Your task to perform on an android device: turn off notifications settings in the gmail app Image 0: 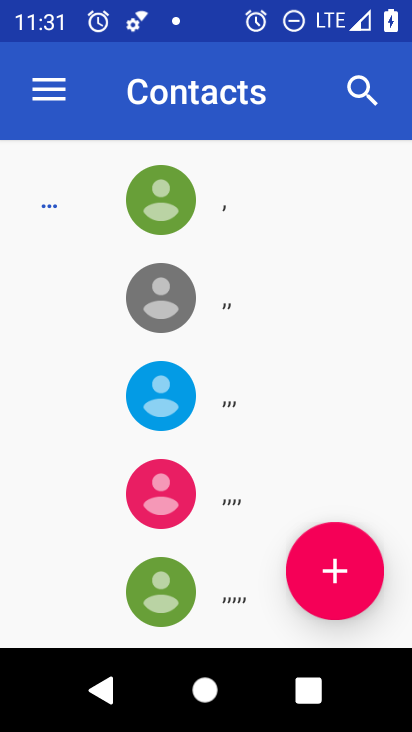
Step 0: press back button
Your task to perform on an android device: turn off notifications settings in the gmail app Image 1: 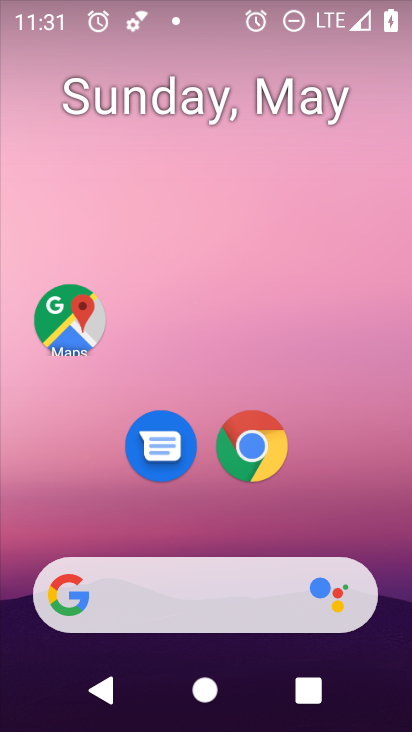
Step 1: drag from (322, 453) to (230, 75)
Your task to perform on an android device: turn off notifications settings in the gmail app Image 2: 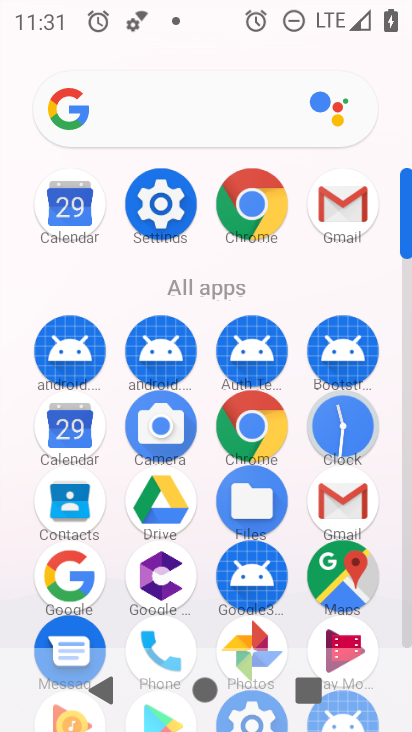
Step 2: drag from (24, 558) to (23, 286)
Your task to perform on an android device: turn off notifications settings in the gmail app Image 3: 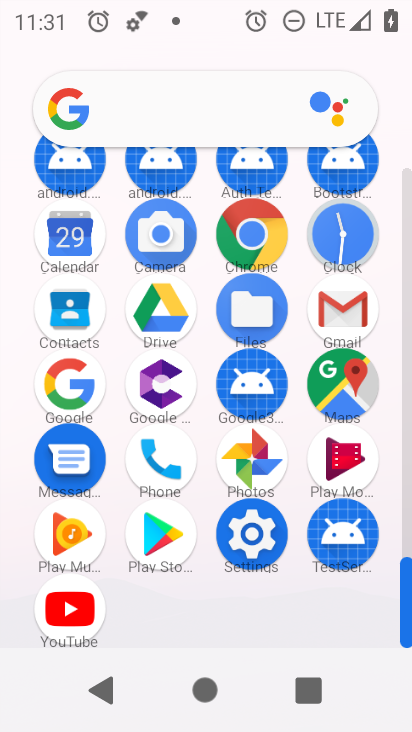
Step 3: click (347, 302)
Your task to perform on an android device: turn off notifications settings in the gmail app Image 4: 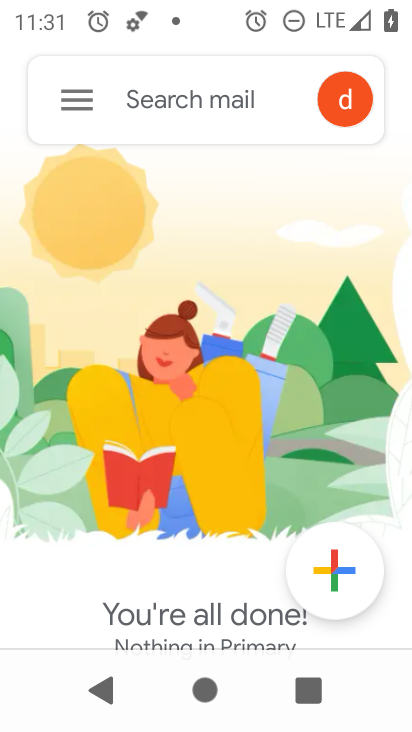
Step 4: click (70, 106)
Your task to perform on an android device: turn off notifications settings in the gmail app Image 5: 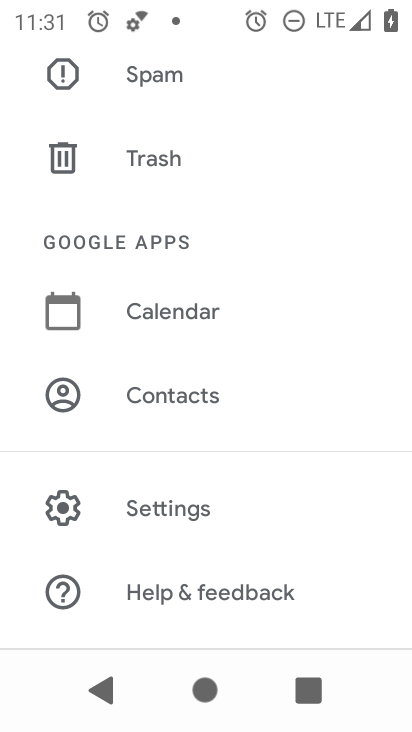
Step 5: drag from (252, 548) to (272, 106)
Your task to perform on an android device: turn off notifications settings in the gmail app Image 6: 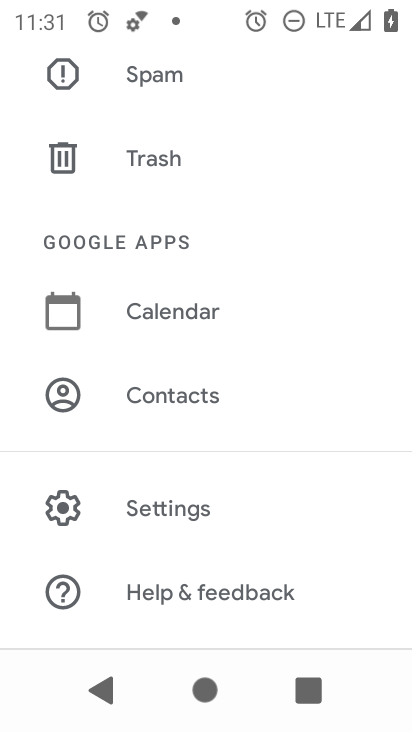
Step 6: click (195, 489)
Your task to perform on an android device: turn off notifications settings in the gmail app Image 7: 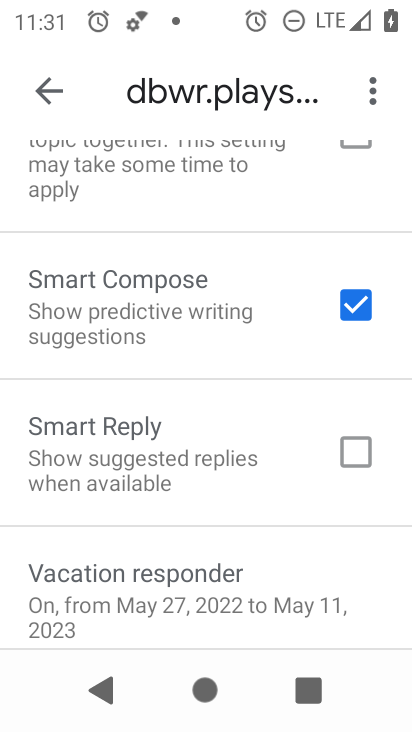
Step 7: drag from (192, 177) to (202, 556)
Your task to perform on an android device: turn off notifications settings in the gmail app Image 8: 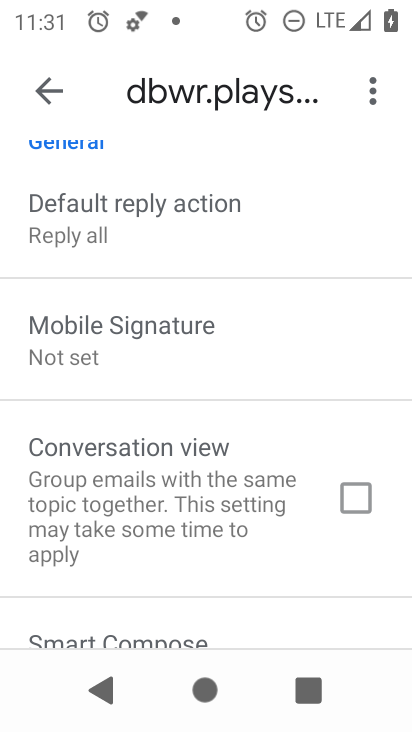
Step 8: drag from (243, 161) to (243, 533)
Your task to perform on an android device: turn off notifications settings in the gmail app Image 9: 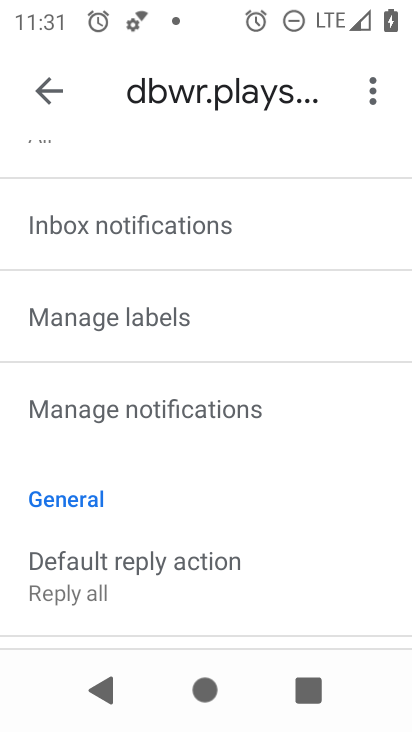
Step 9: click (184, 416)
Your task to perform on an android device: turn off notifications settings in the gmail app Image 10: 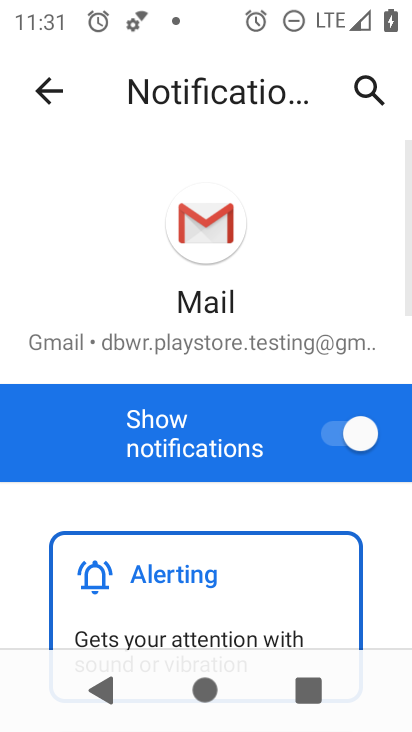
Step 10: click (354, 439)
Your task to perform on an android device: turn off notifications settings in the gmail app Image 11: 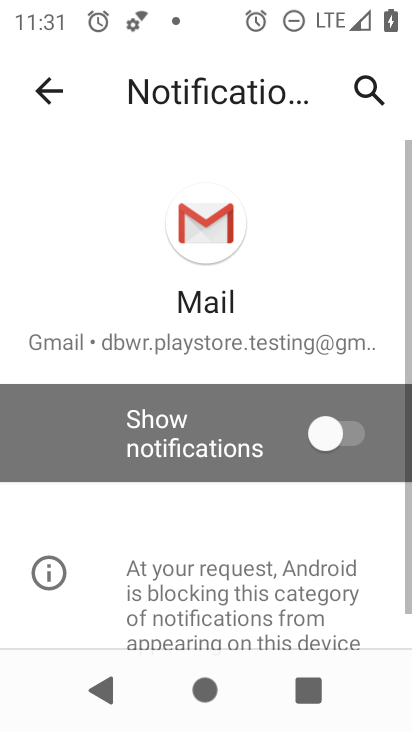
Step 11: task complete